Your task to perform on an android device: Turn on the flashlight Image 0: 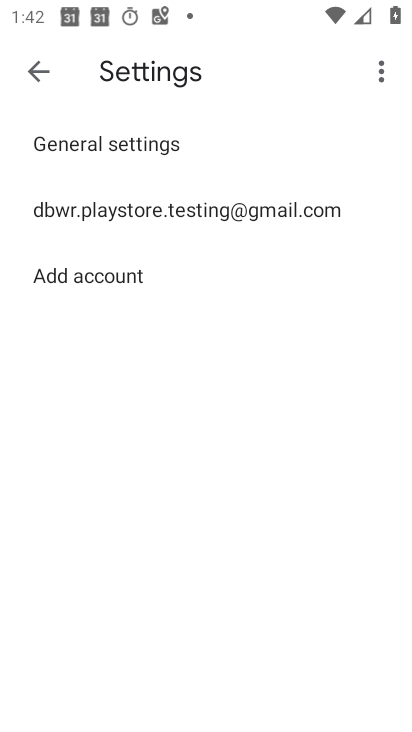
Step 0: press home button
Your task to perform on an android device: Turn on the flashlight Image 1: 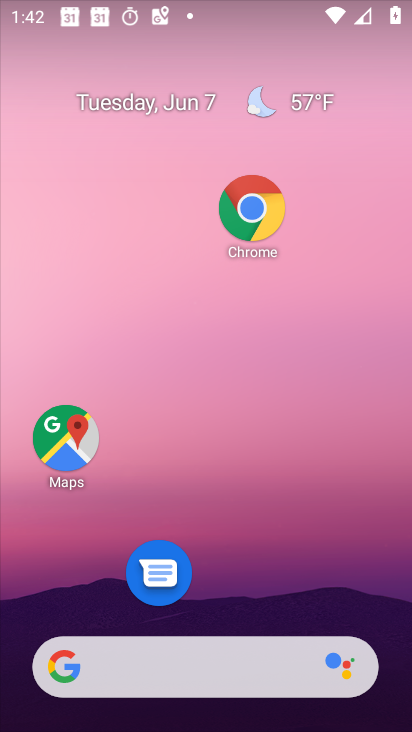
Step 1: drag from (215, 593) to (215, 168)
Your task to perform on an android device: Turn on the flashlight Image 2: 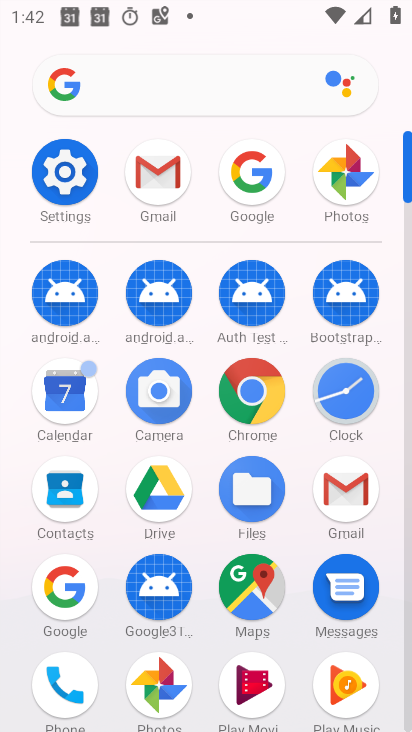
Step 2: click (36, 190)
Your task to perform on an android device: Turn on the flashlight Image 3: 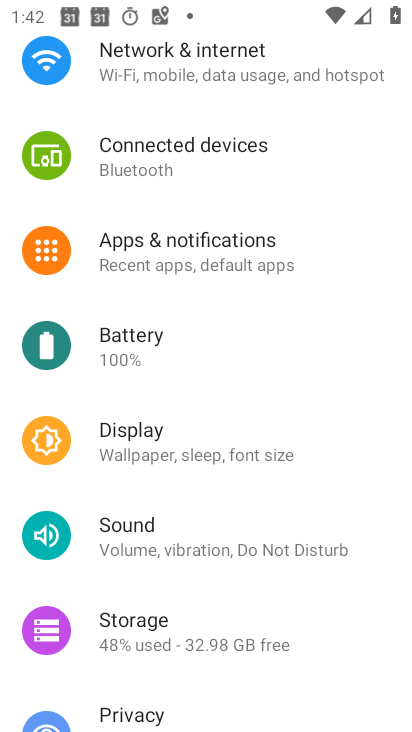
Step 3: task complete